Your task to perform on an android device: change text size in settings app Image 0: 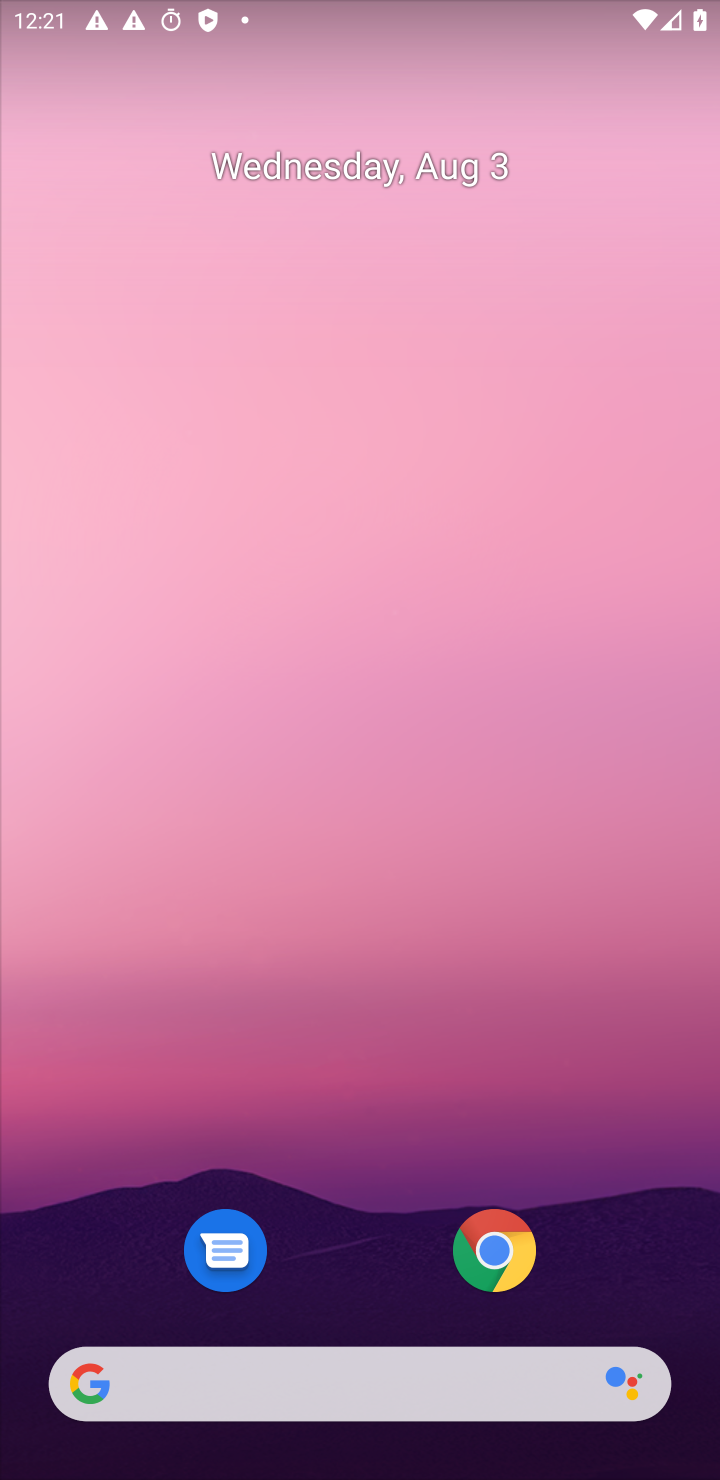
Step 0: drag from (376, 1247) to (308, 401)
Your task to perform on an android device: change text size in settings app Image 1: 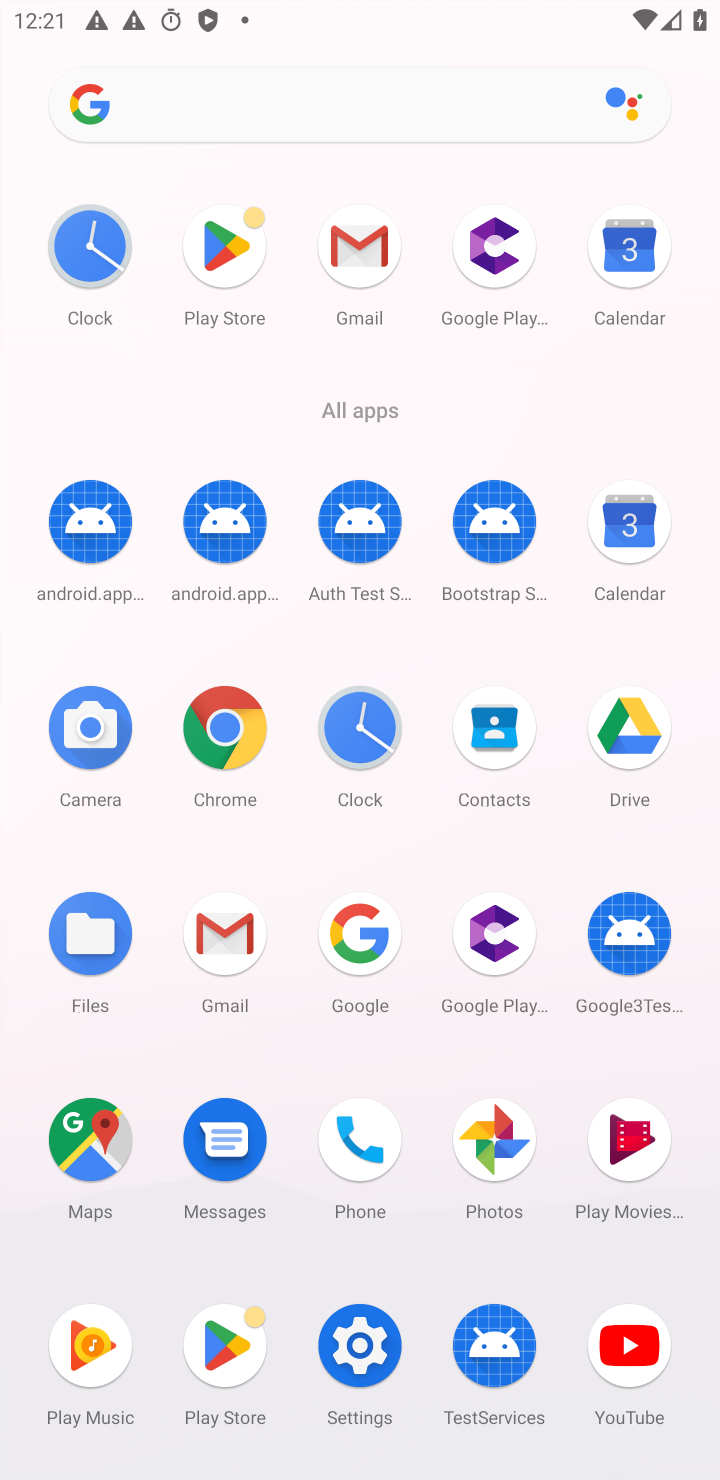
Step 1: click (343, 1344)
Your task to perform on an android device: change text size in settings app Image 2: 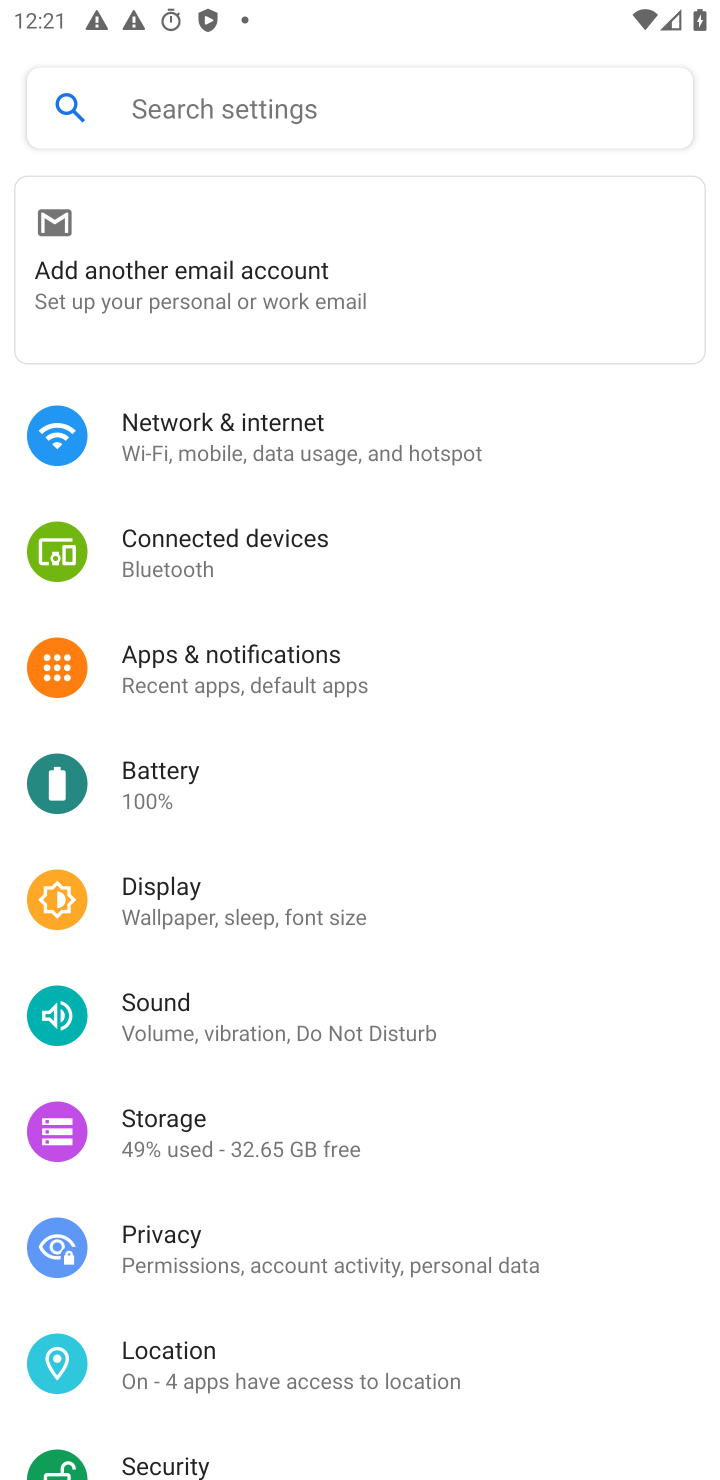
Step 2: click (310, 924)
Your task to perform on an android device: change text size in settings app Image 3: 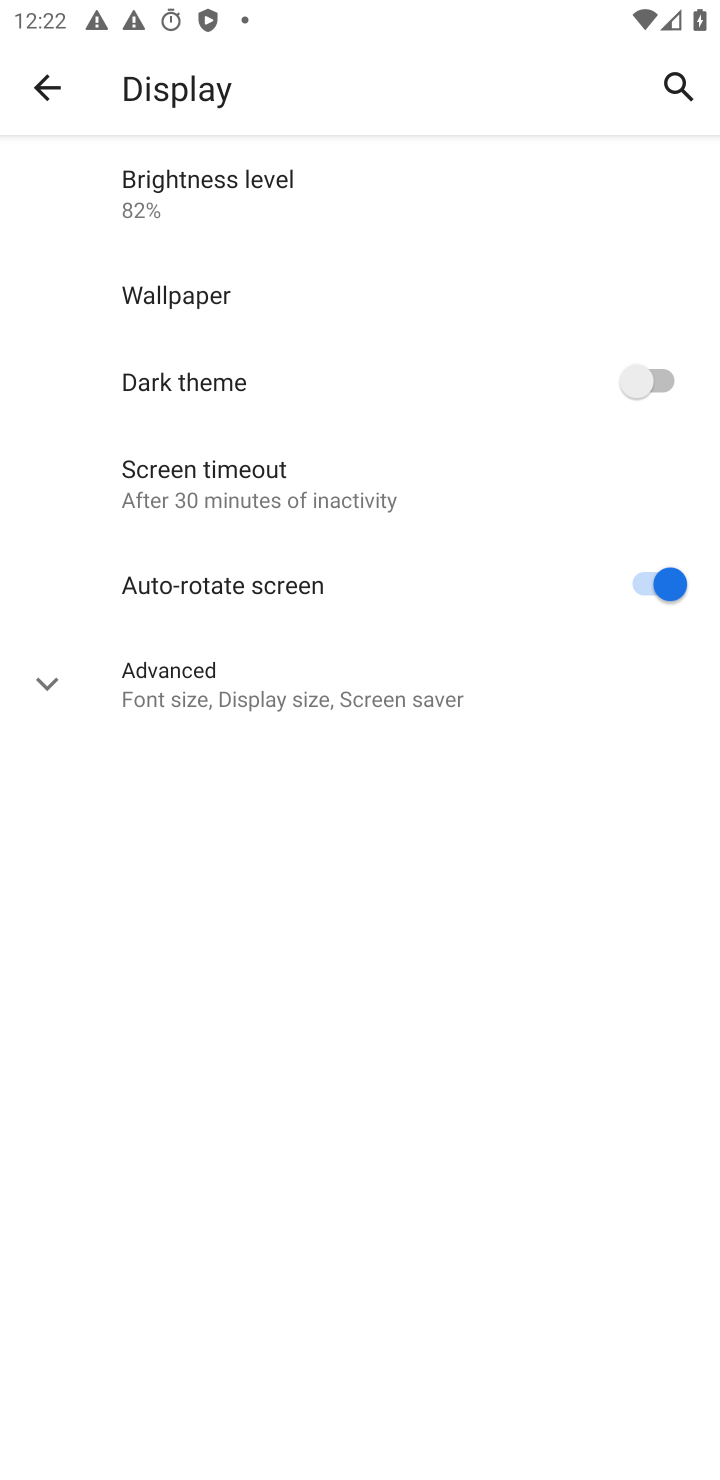
Step 3: click (236, 698)
Your task to perform on an android device: change text size in settings app Image 4: 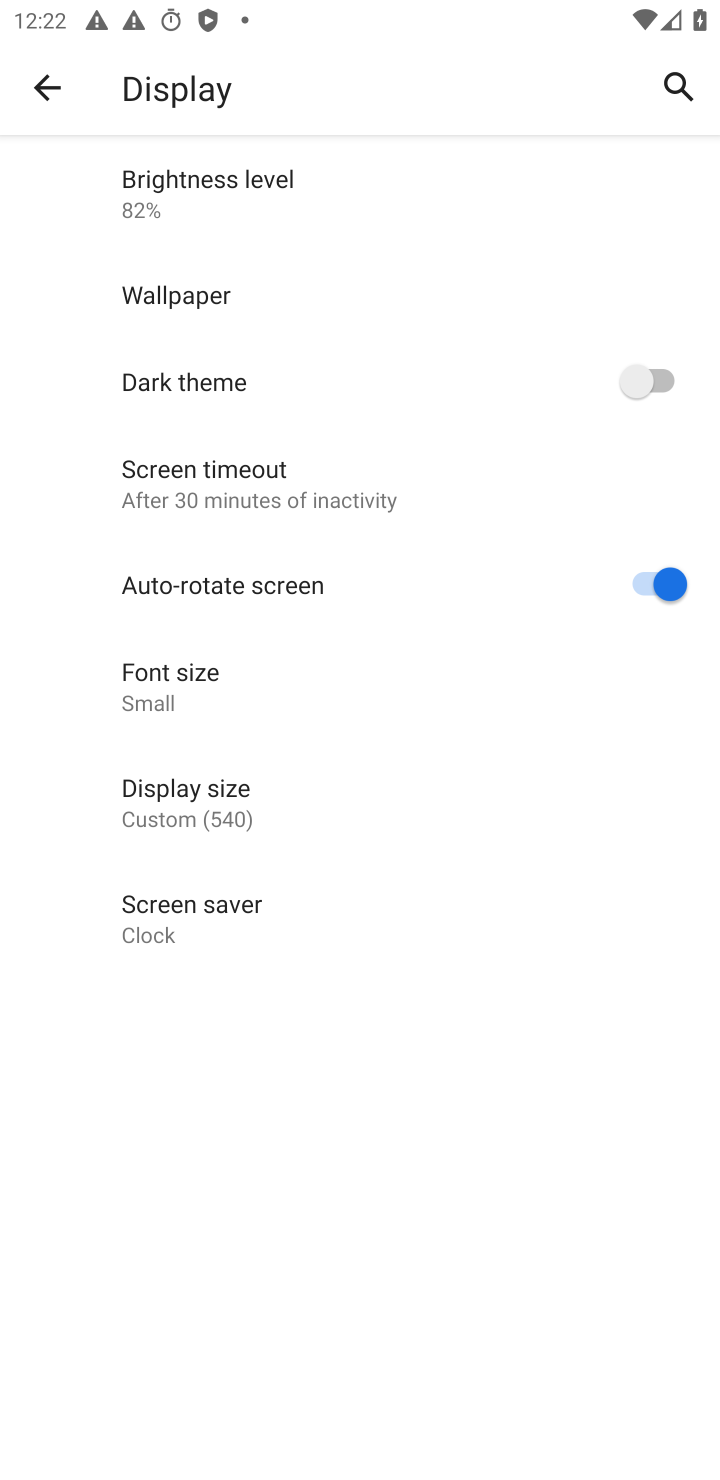
Step 4: click (213, 698)
Your task to perform on an android device: change text size in settings app Image 5: 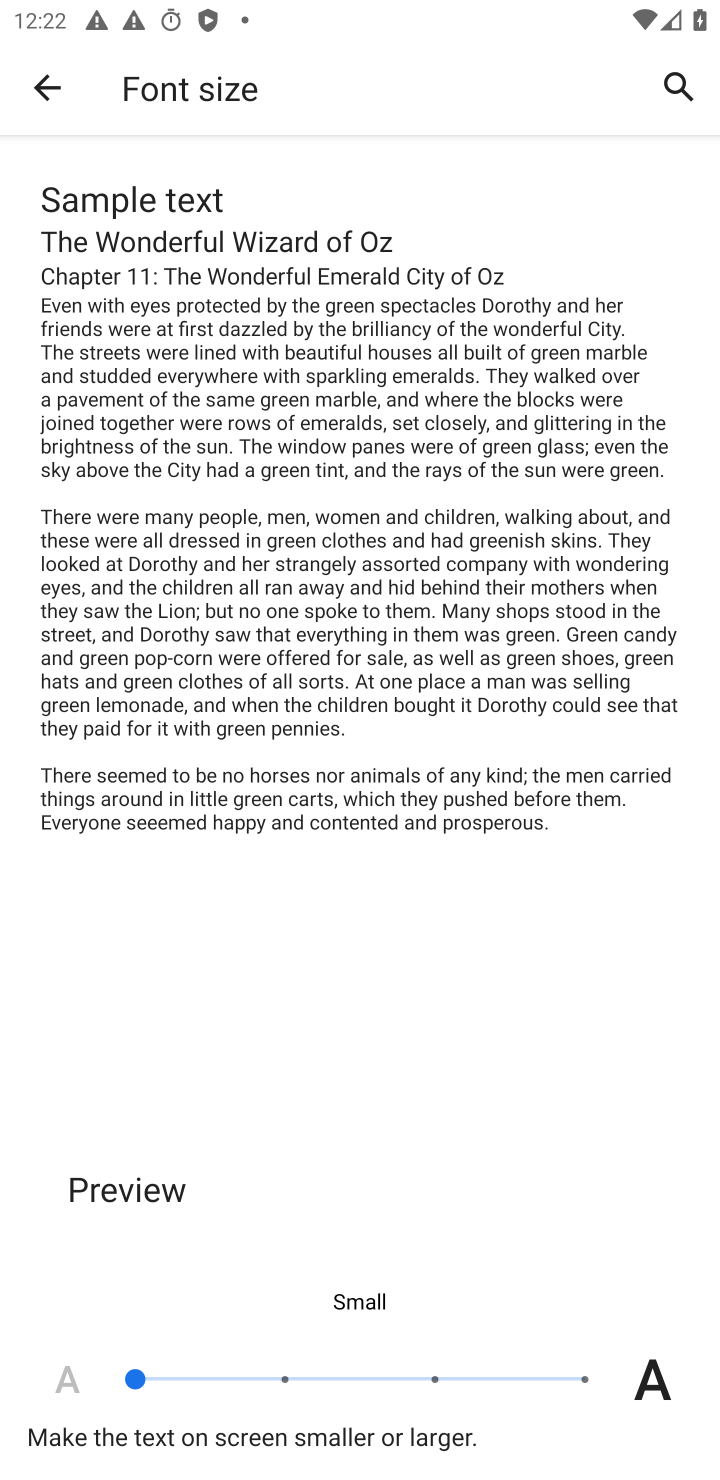
Step 5: click (444, 1386)
Your task to perform on an android device: change text size in settings app Image 6: 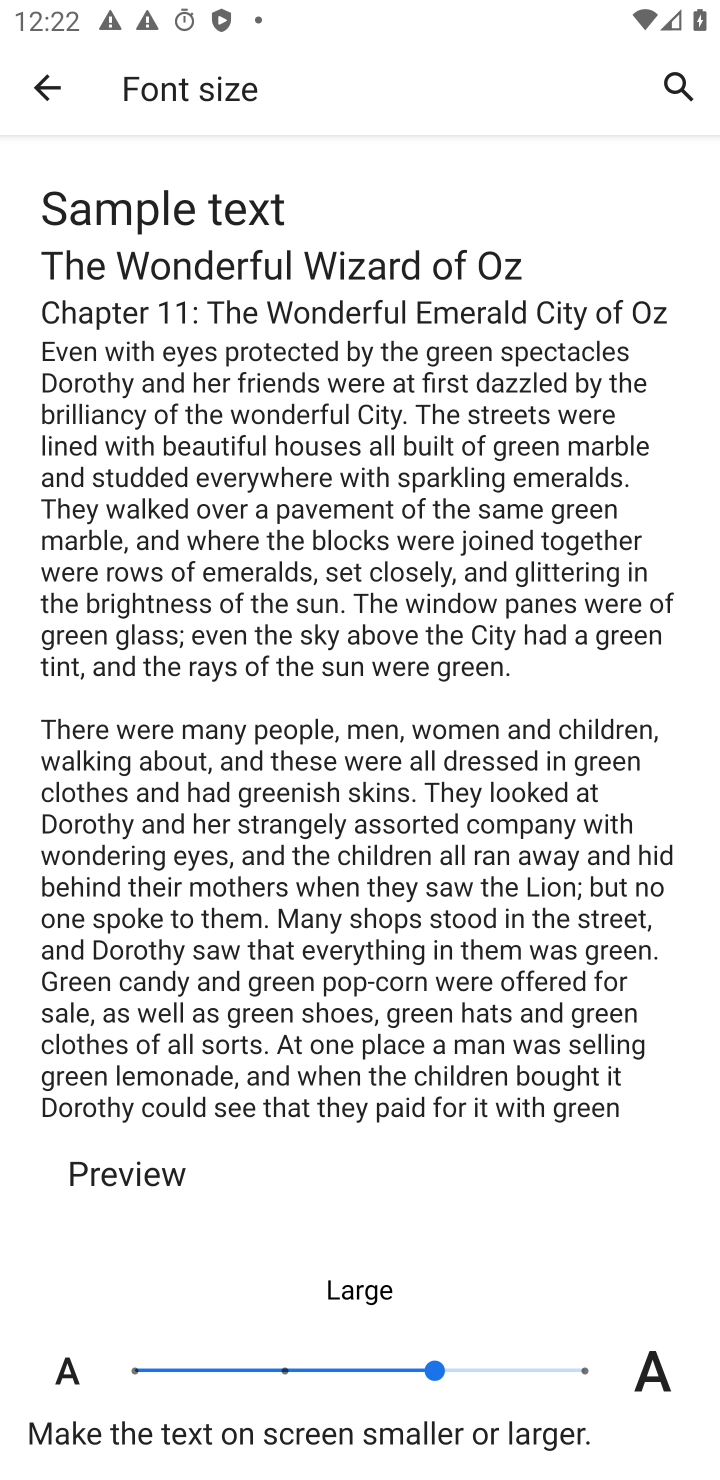
Step 6: task complete